Your task to perform on an android device: toggle priority inbox in the gmail app Image 0: 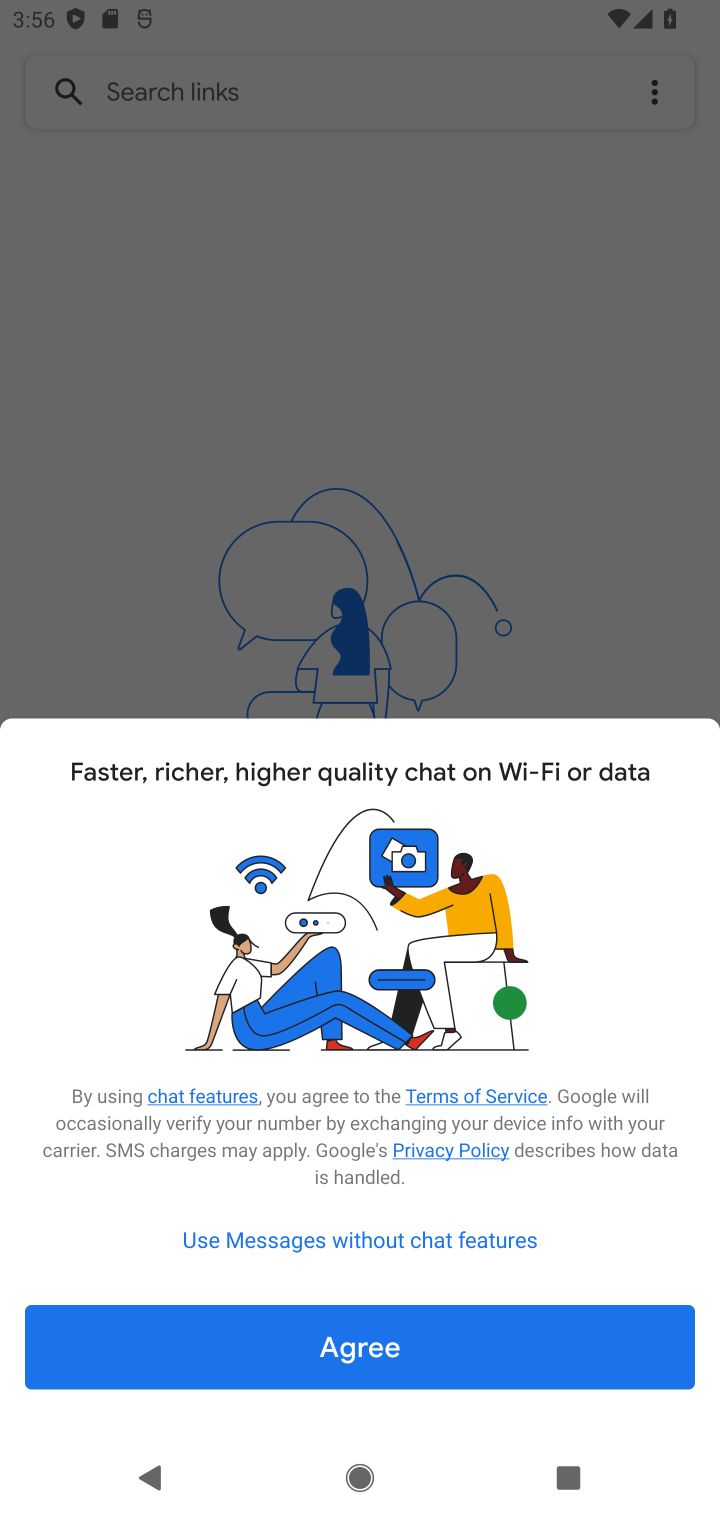
Step 0: press home button
Your task to perform on an android device: toggle priority inbox in the gmail app Image 1: 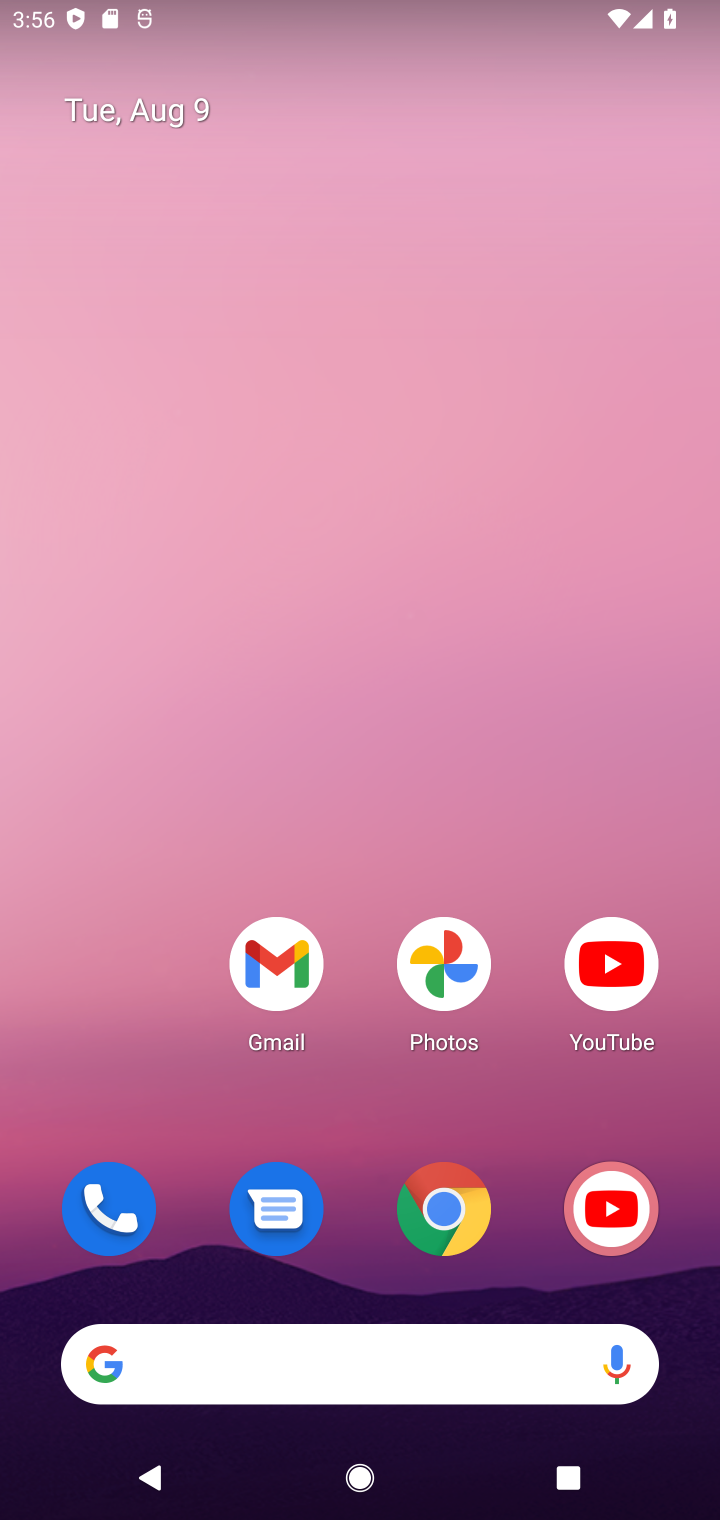
Step 1: click (264, 968)
Your task to perform on an android device: toggle priority inbox in the gmail app Image 2: 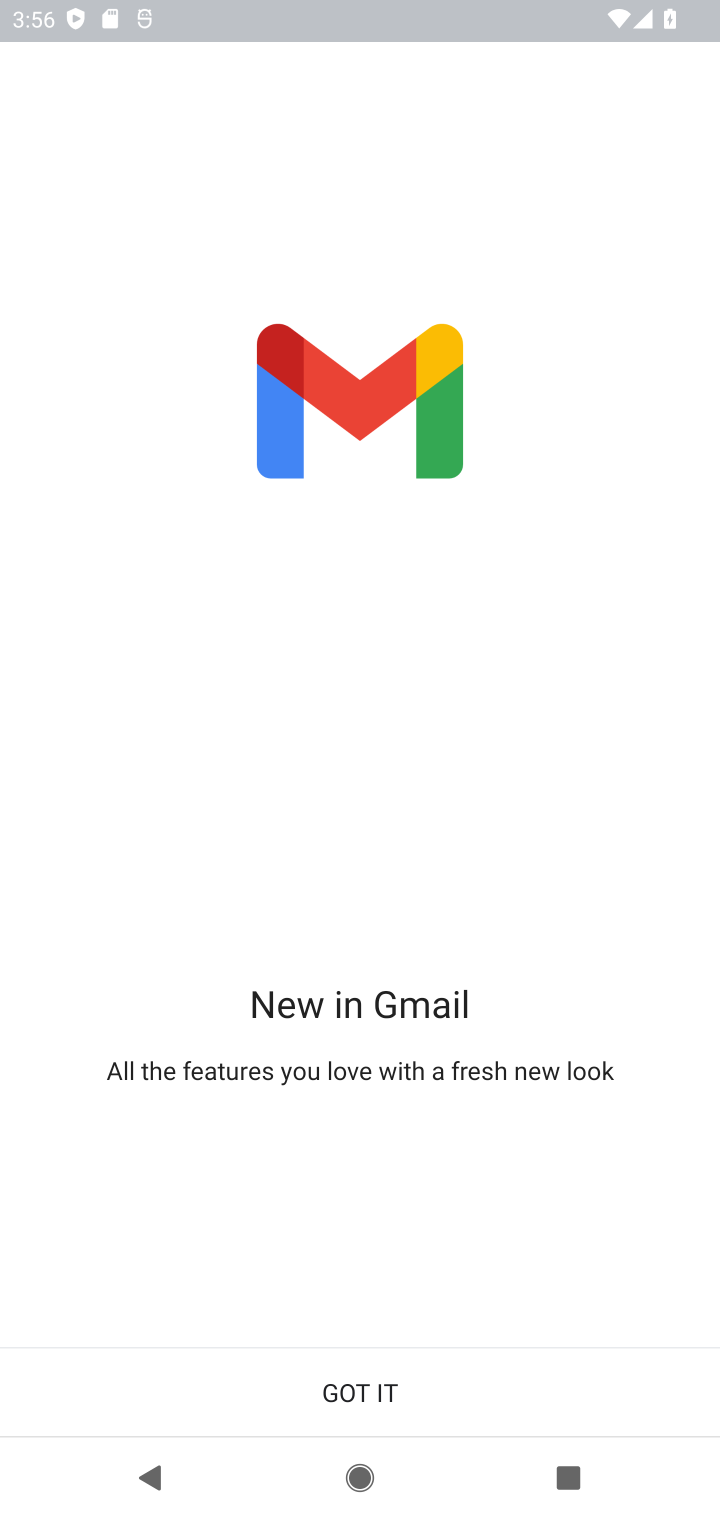
Step 2: click (366, 1392)
Your task to perform on an android device: toggle priority inbox in the gmail app Image 3: 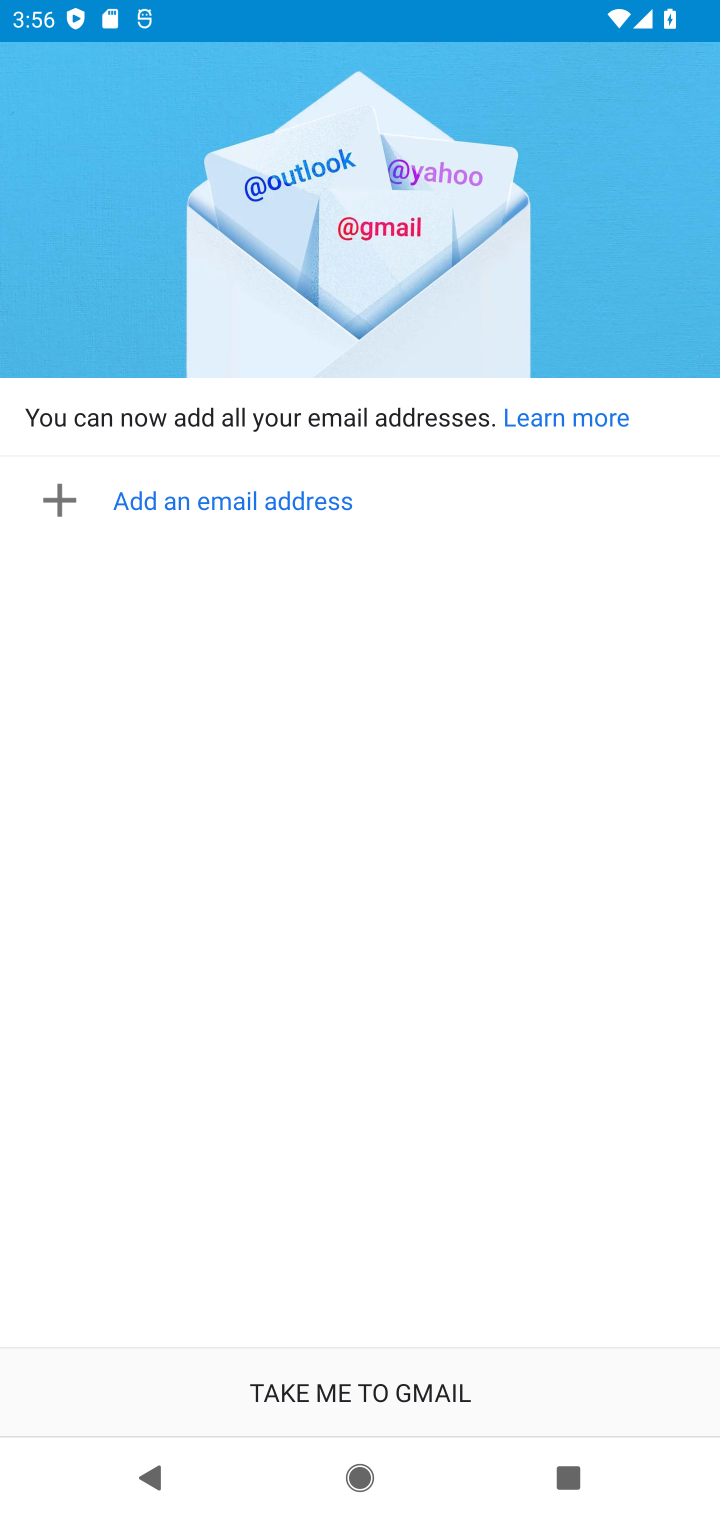
Step 3: click (317, 1391)
Your task to perform on an android device: toggle priority inbox in the gmail app Image 4: 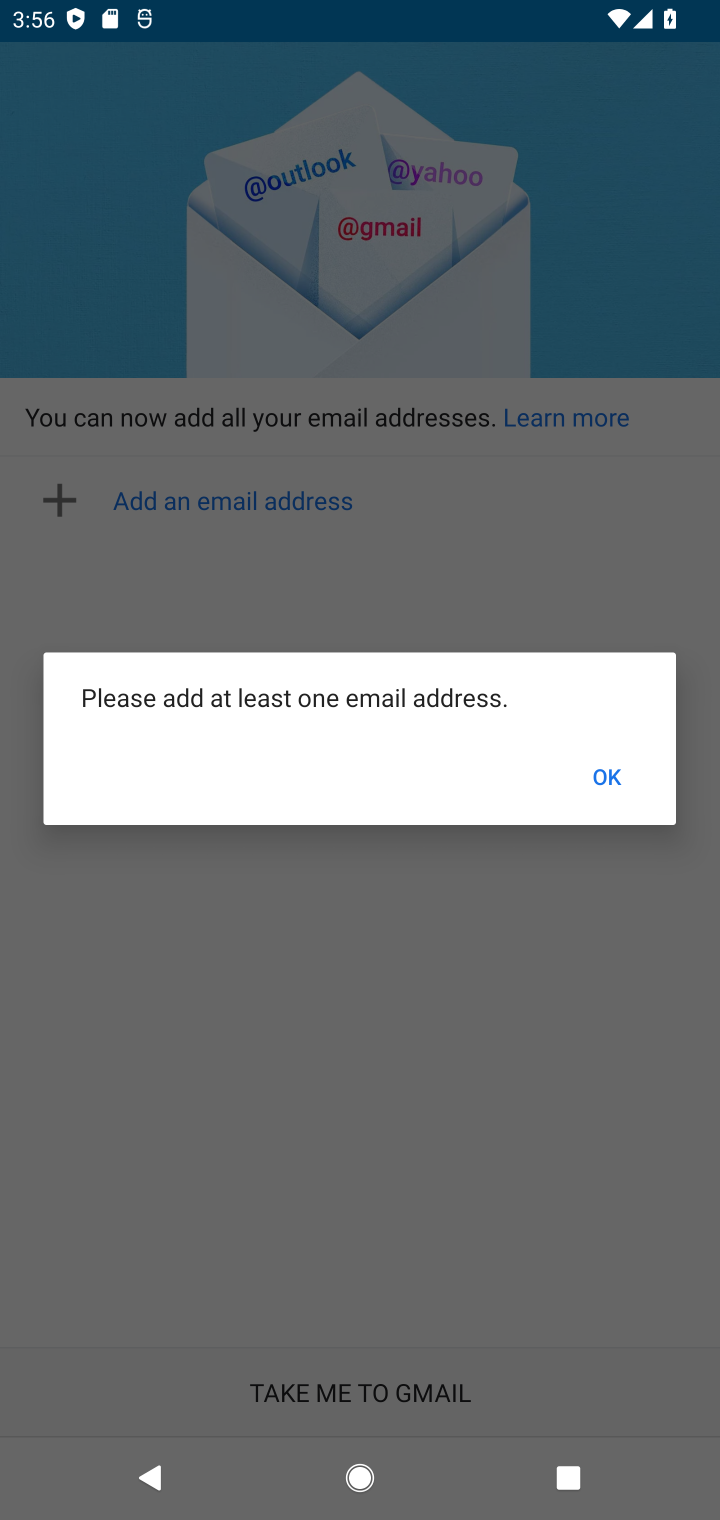
Step 4: click (606, 770)
Your task to perform on an android device: toggle priority inbox in the gmail app Image 5: 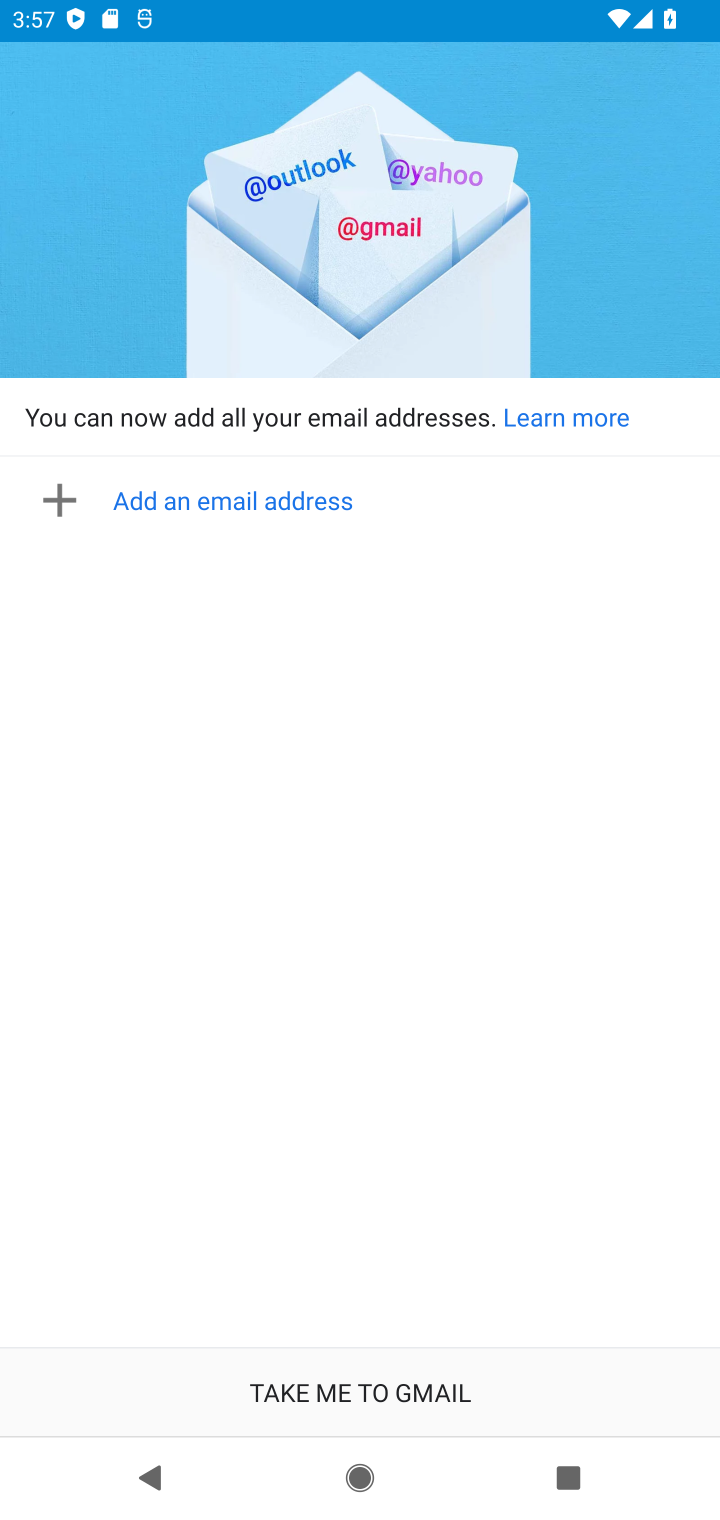
Step 5: task complete